Your task to perform on an android device: check out phone information Image 0: 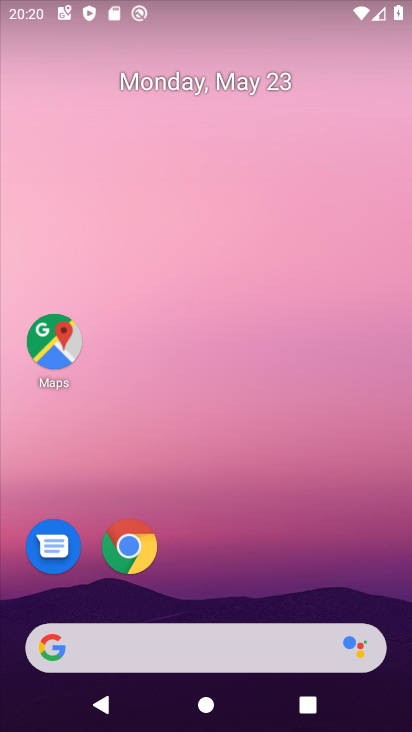
Step 0: drag from (395, 608) to (384, 226)
Your task to perform on an android device: check out phone information Image 1: 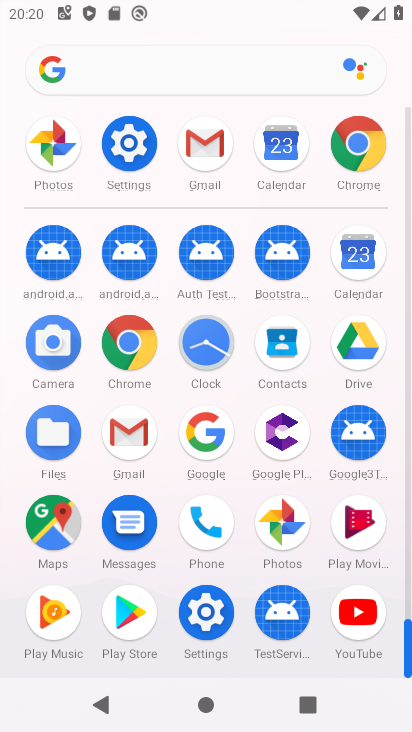
Step 1: click (210, 528)
Your task to perform on an android device: check out phone information Image 2: 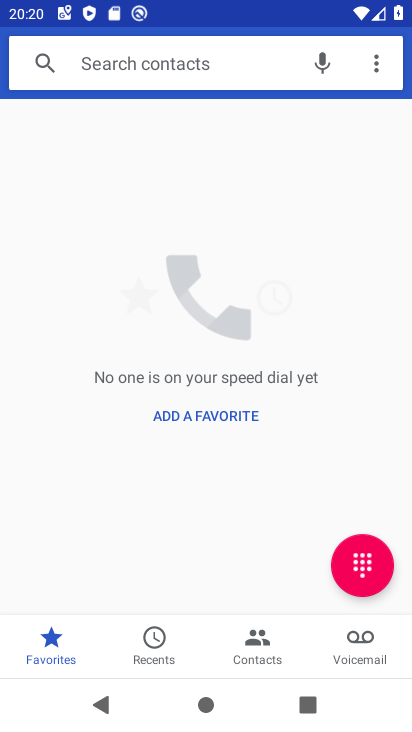
Step 2: click (163, 652)
Your task to perform on an android device: check out phone information Image 3: 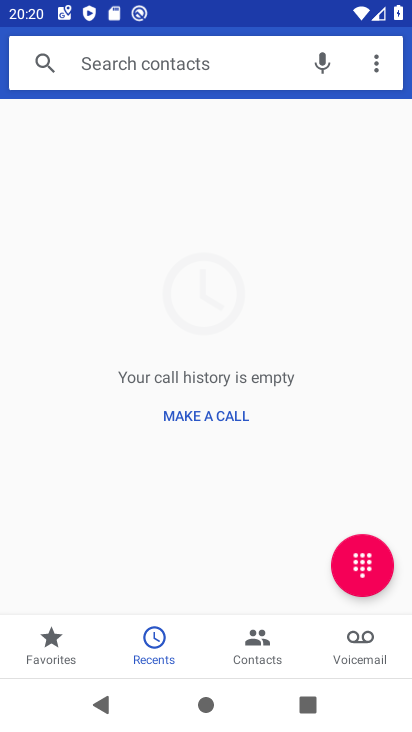
Step 3: task complete